Your task to perform on an android device: turn off translation in the chrome app Image 0: 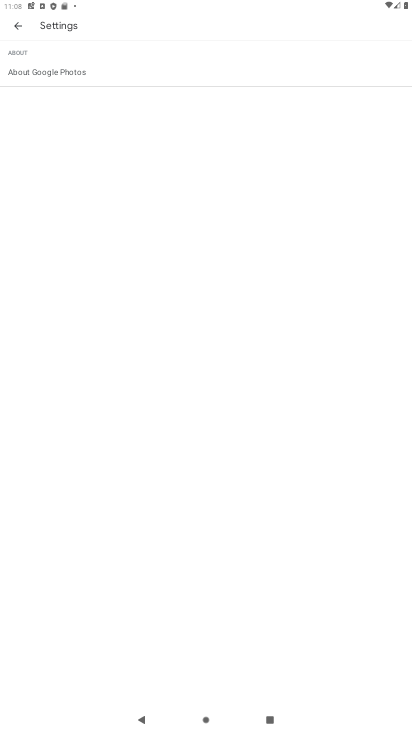
Step 0: press home button
Your task to perform on an android device: turn off translation in the chrome app Image 1: 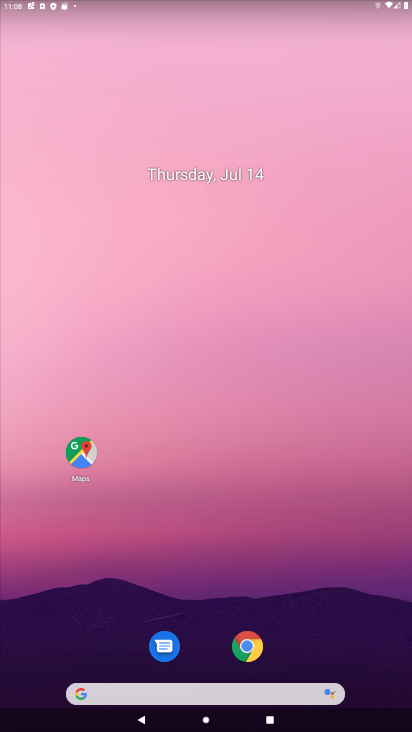
Step 1: click (256, 654)
Your task to perform on an android device: turn off translation in the chrome app Image 2: 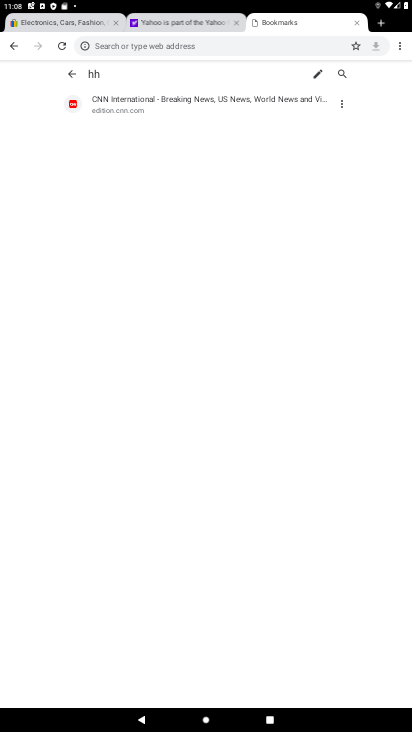
Step 2: click (399, 39)
Your task to perform on an android device: turn off translation in the chrome app Image 3: 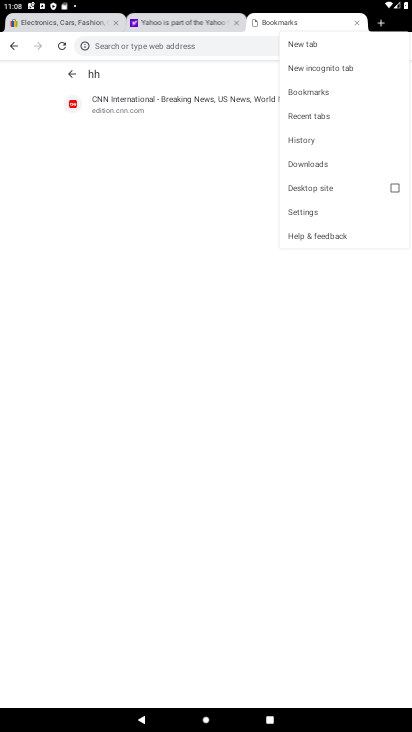
Step 3: click (316, 206)
Your task to perform on an android device: turn off translation in the chrome app Image 4: 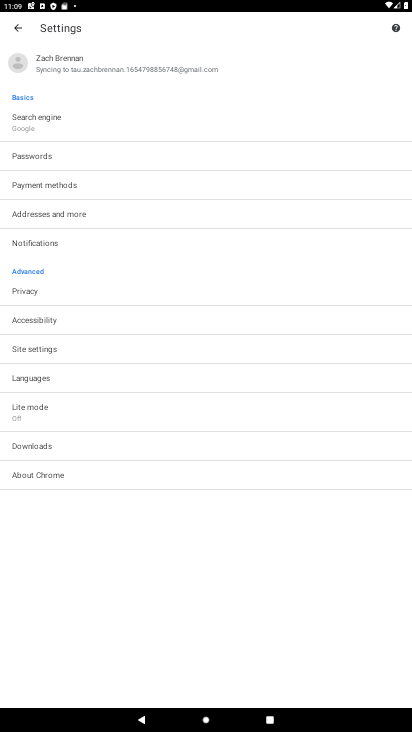
Step 4: click (60, 376)
Your task to perform on an android device: turn off translation in the chrome app Image 5: 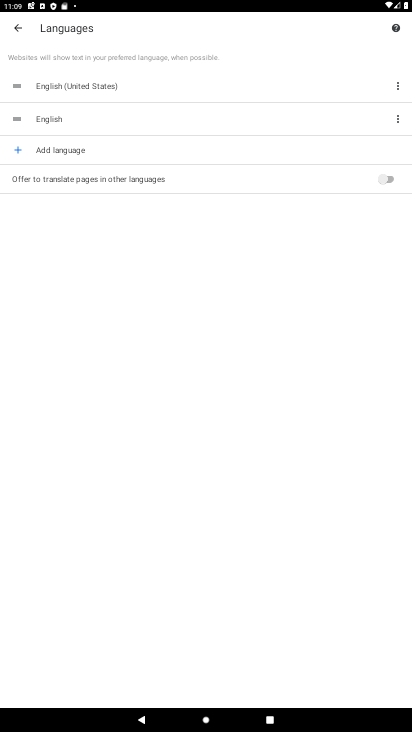
Step 5: task complete